Your task to perform on an android device: Show me popular videos on Youtube Image 0: 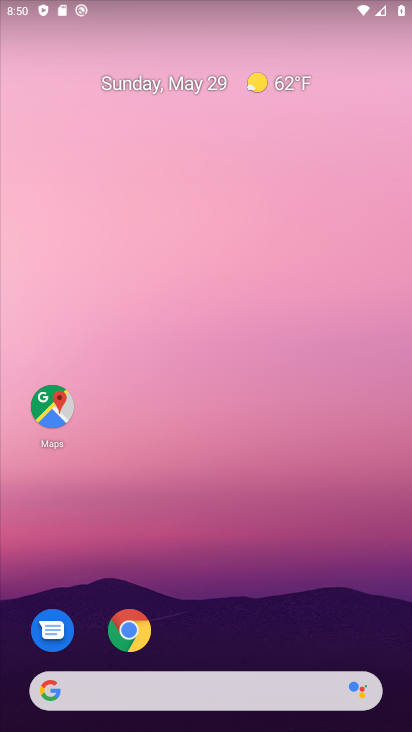
Step 0: drag from (393, 706) to (334, 123)
Your task to perform on an android device: Show me popular videos on Youtube Image 1: 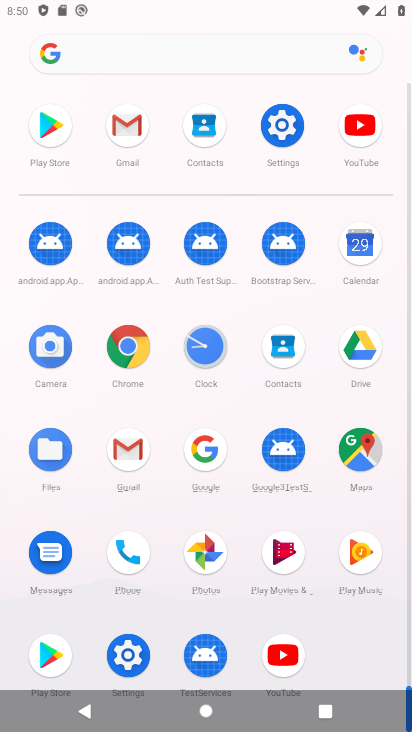
Step 1: click (348, 123)
Your task to perform on an android device: Show me popular videos on Youtube Image 2: 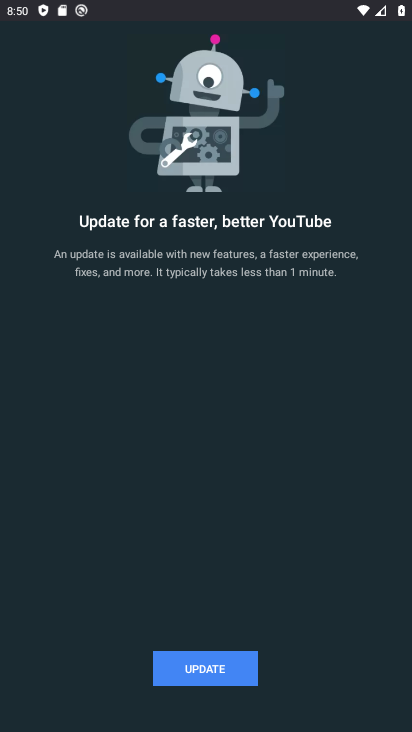
Step 2: click (198, 670)
Your task to perform on an android device: Show me popular videos on Youtube Image 3: 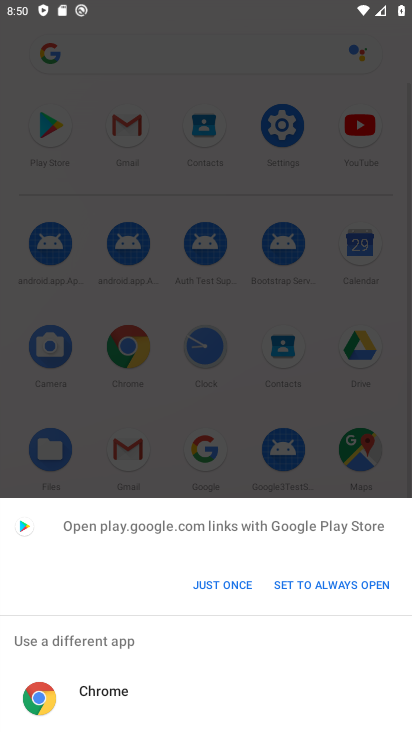
Step 3: click (234, 581)
Your task to perform on an android device: Show me popular videos on Youtube Image 4: 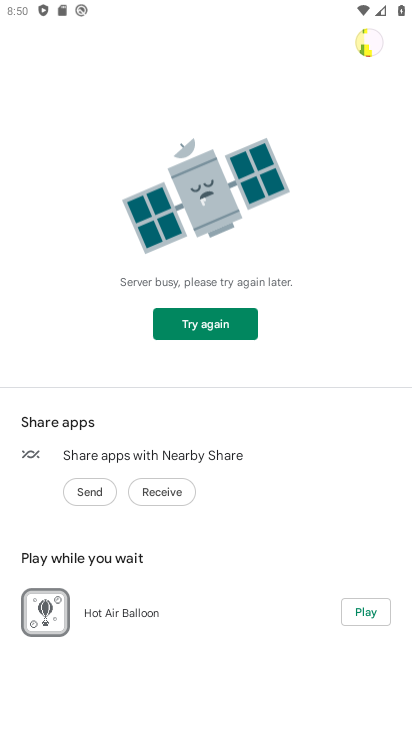
Step 4: task complete